Your task to perform on an android device: What's on my calendar tomorrow? Image 0: 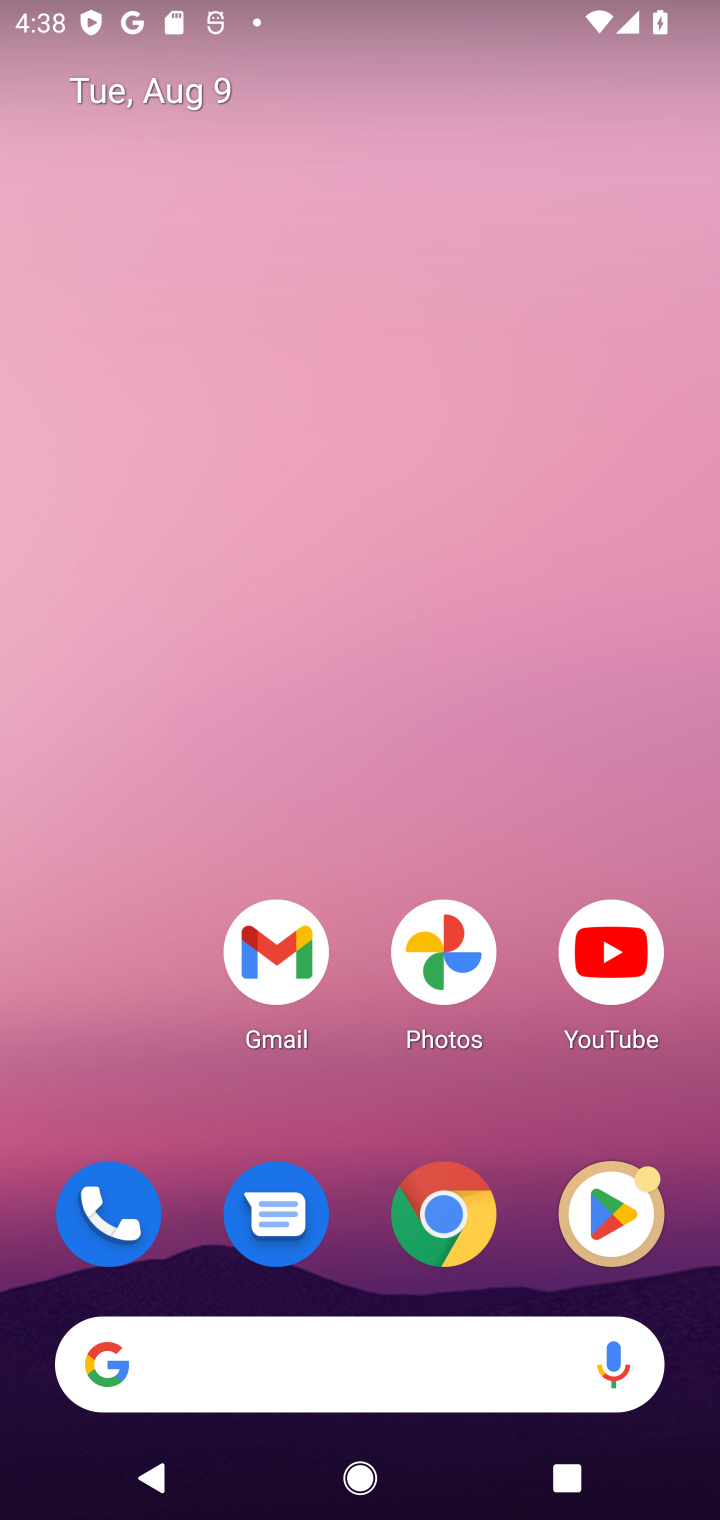
Step 0: drag from (515, 1414) to (257, 335)
Your task to perform on an android device: What's on my calendar tomorrow? Image 1: 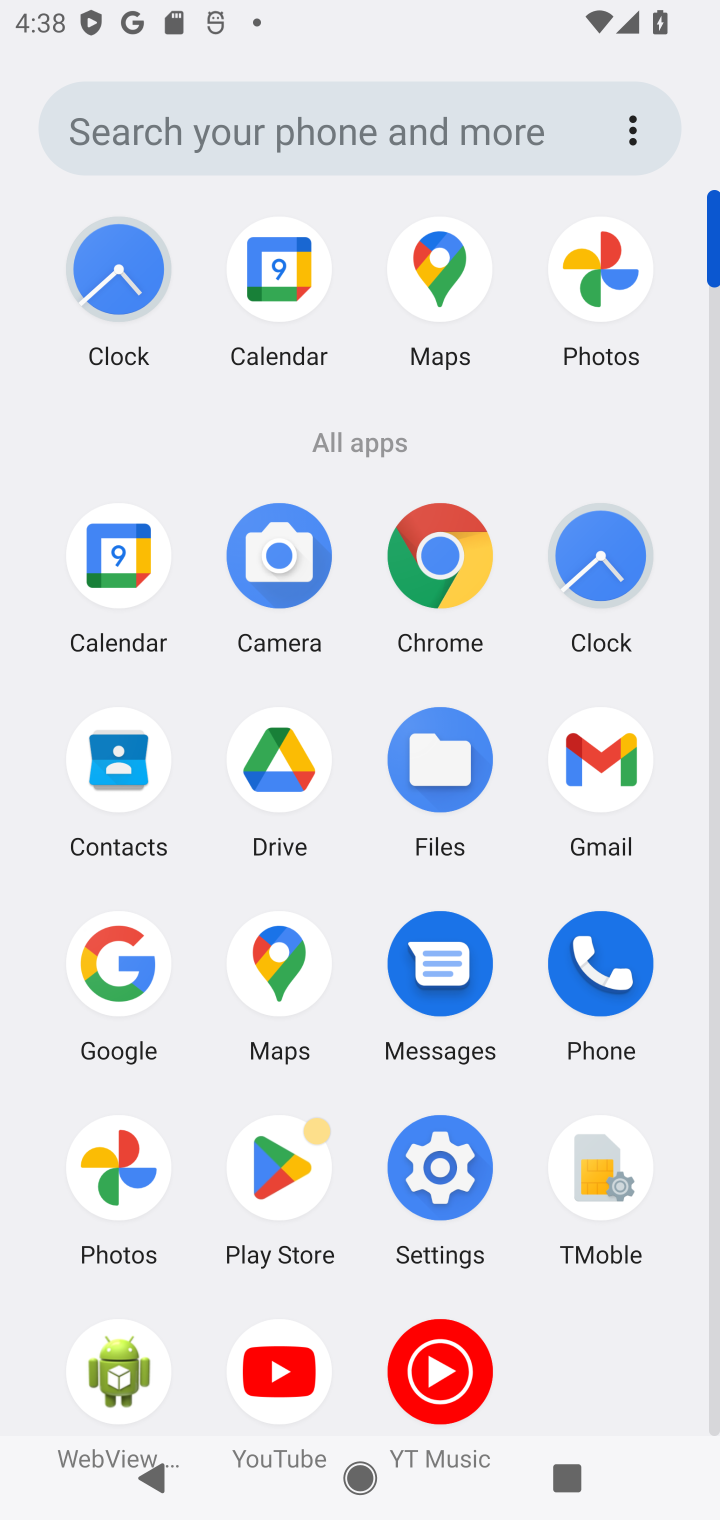
Step 1: click (129, 578)
Your task to perform on an android device: What's on my calendar tomorrow? Image 2: 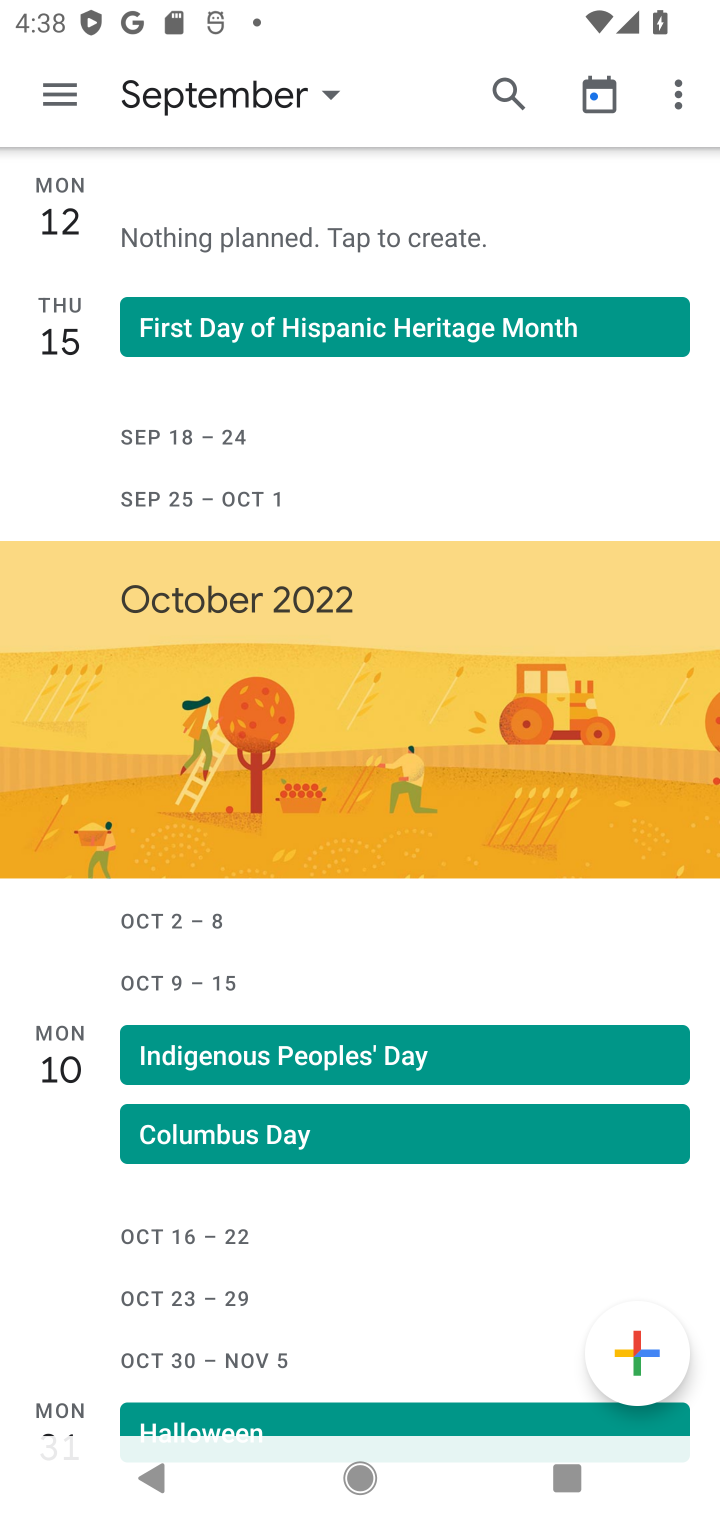
Step 2: click (75, 116)
Your task to perform on an android device: What's on my calendar tomorrow? Image 3: 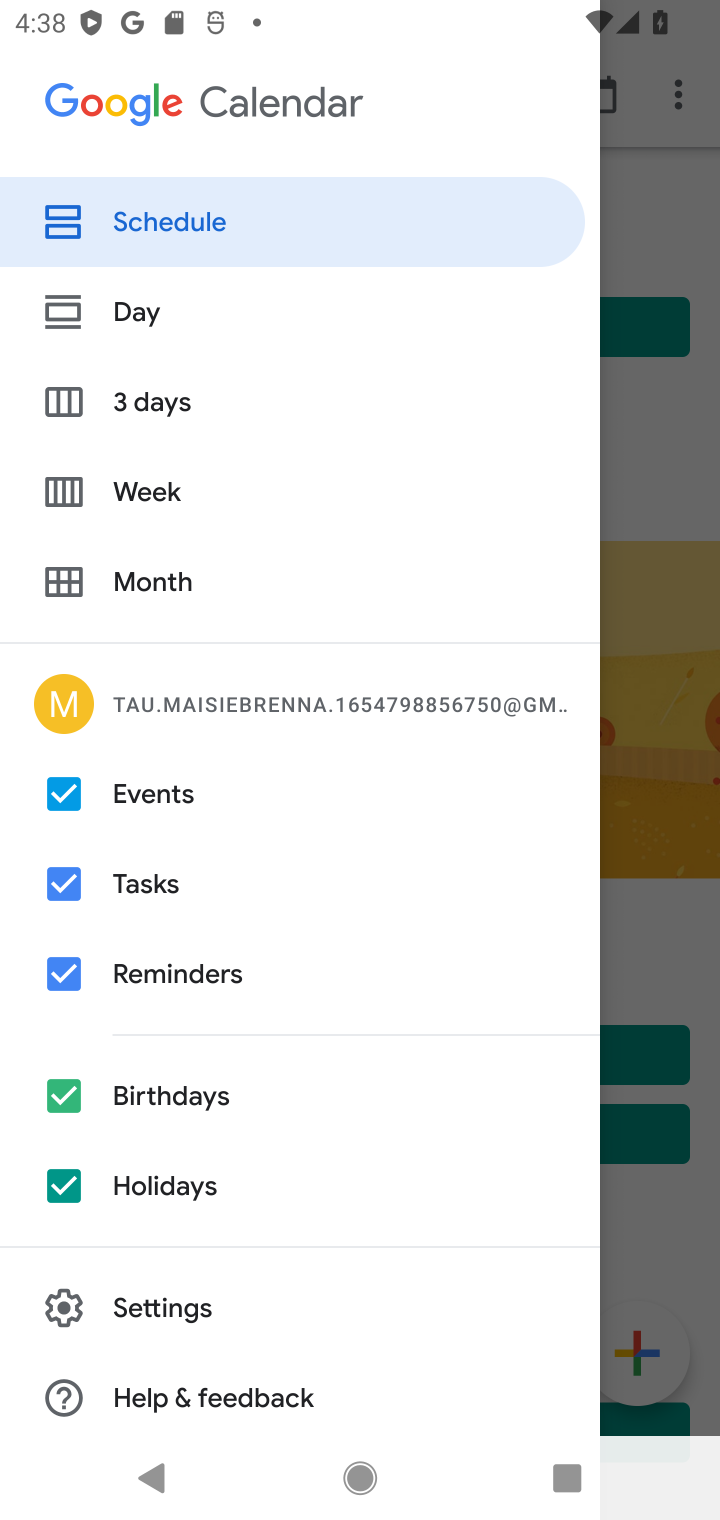
Step 3: click (129, 585)
Your task to perform on an android device: What's on my calendar tomorrow? Image 4: 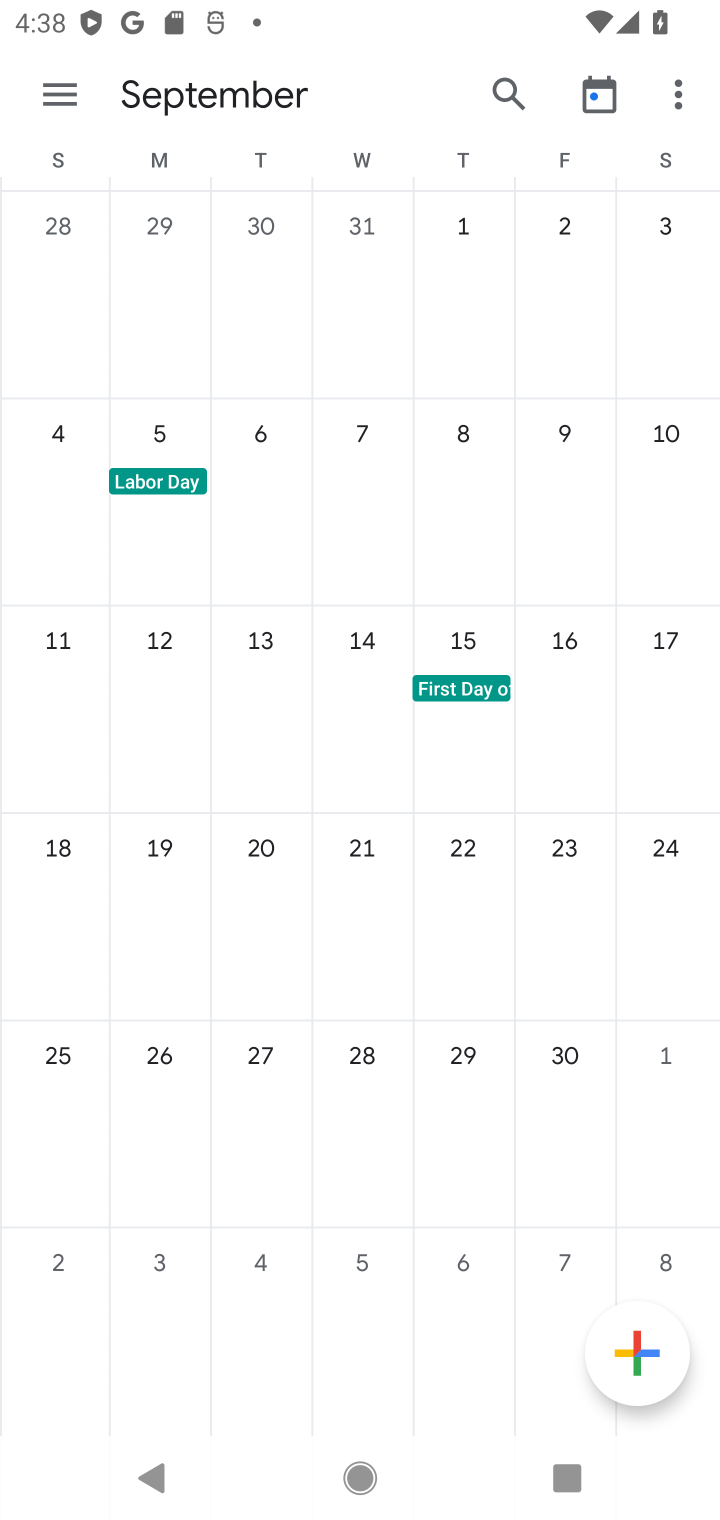
Step 4: drag from (54, 659) to (719, 541)
Your task to perform on an android device: What's on my calendar tomorrow? Image 5: 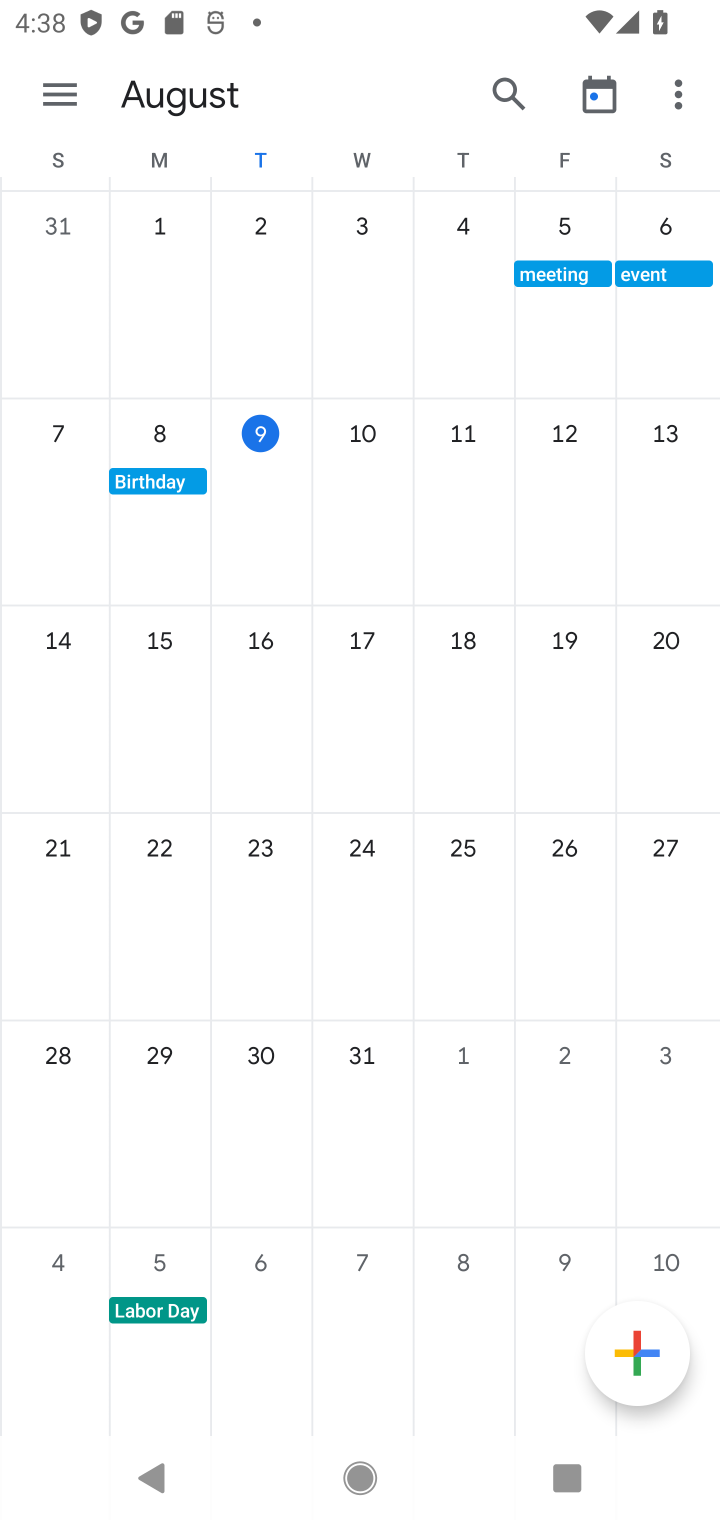
Step 5: click (379, 482)
Your task to perform on an android device: What's on my calendar tomorrow? Image 6: 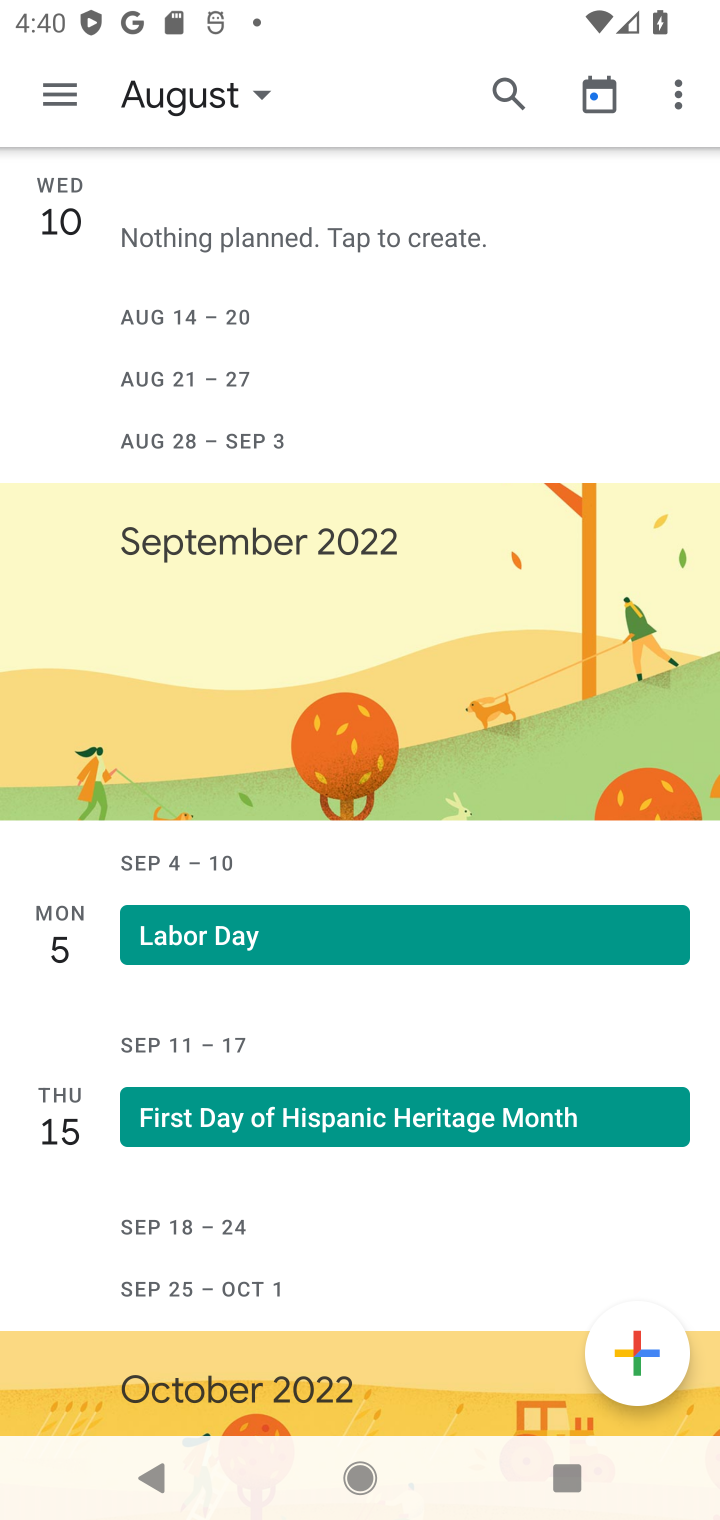
Step 6: task complete